Your task to perform on an android device: Go to calendar. Show me events next week Image 0: 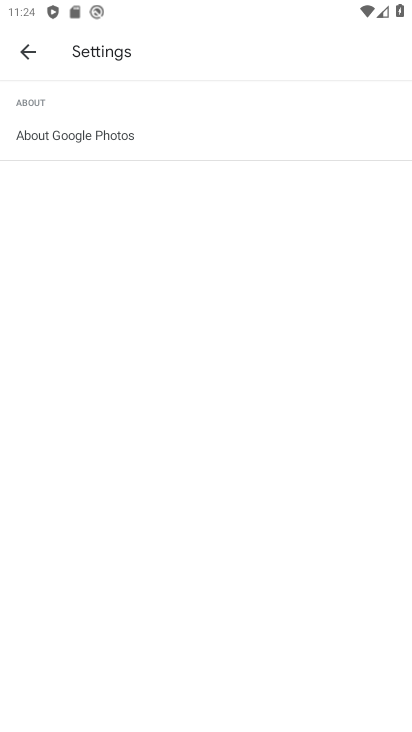
Step 0: press home button
Your task to perform on an android device: Go to calendar. Show me events next week Image 1: 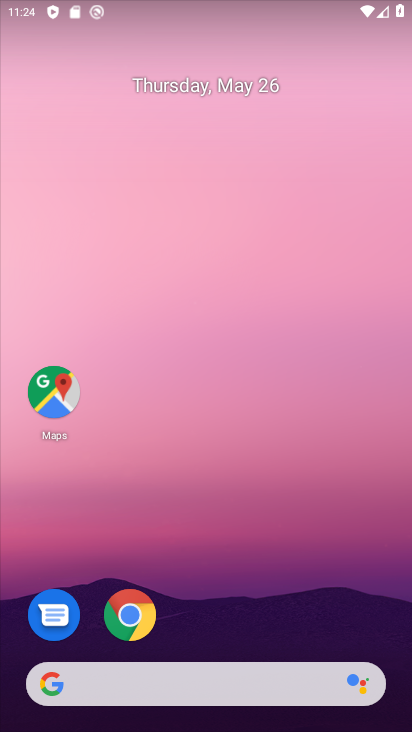
Step 1: drag from (265, 606) to (217, 97)
Your task to perform on an android device: Go to calendar. Show me events next week Image 2: 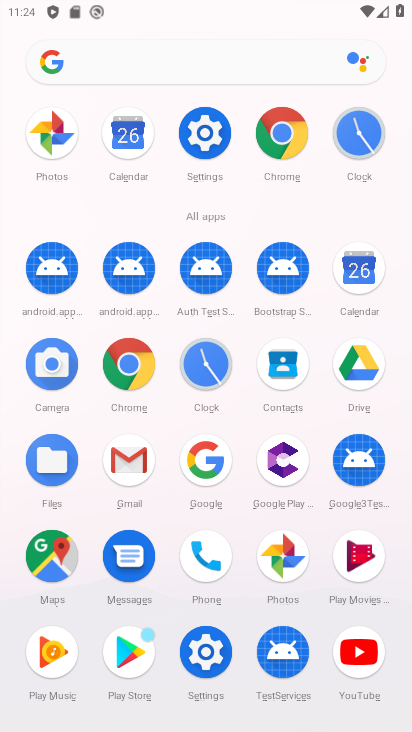
Step 2: click (352, 271)
Your task to perform on an android device: Go to calendar. Show me events next week Image 3: 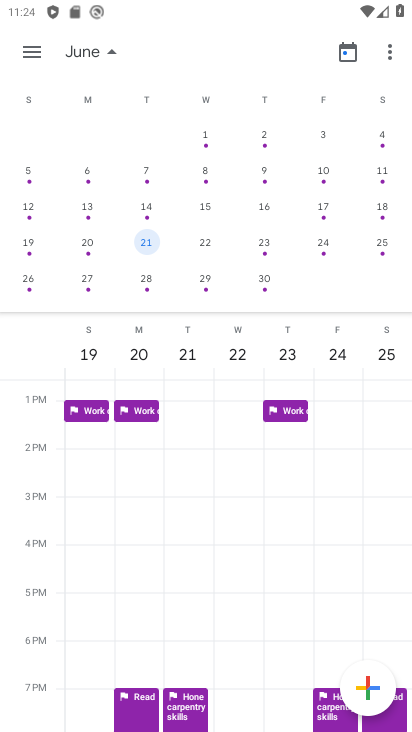
Step 3: drag from (68, 193) to (406, 195)
Your task to perform on an android device: Go to calendar. Show me events next week Image 4: 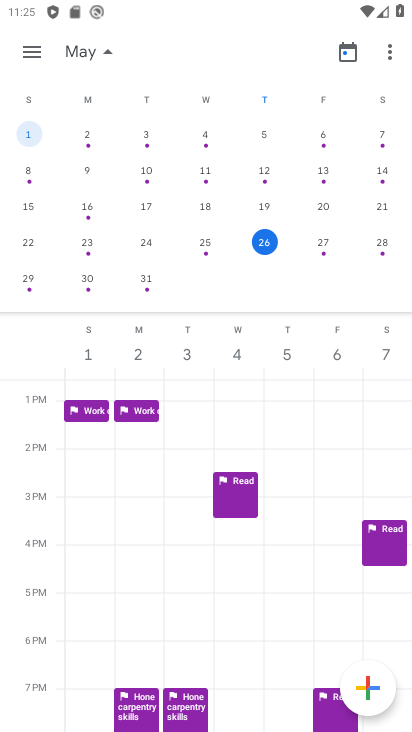
Step 4: click (143, 277)
Your task to perform on an android device: Go to calendar. Show me events next week Image 5: 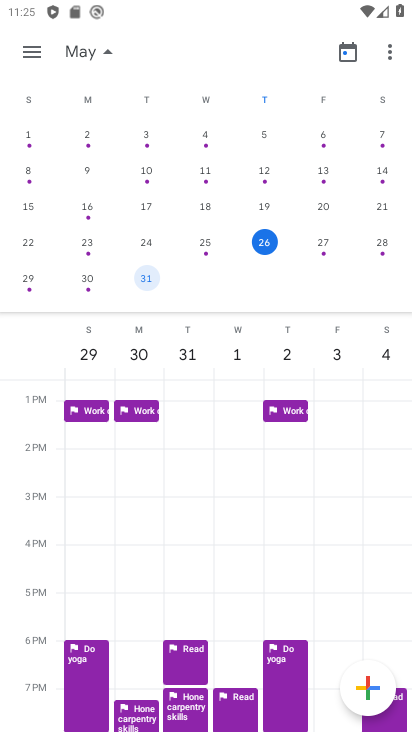
Step 5: task complete